Your task to perform on an android device: Search for handmade jewelry on Etsy. Image 0: 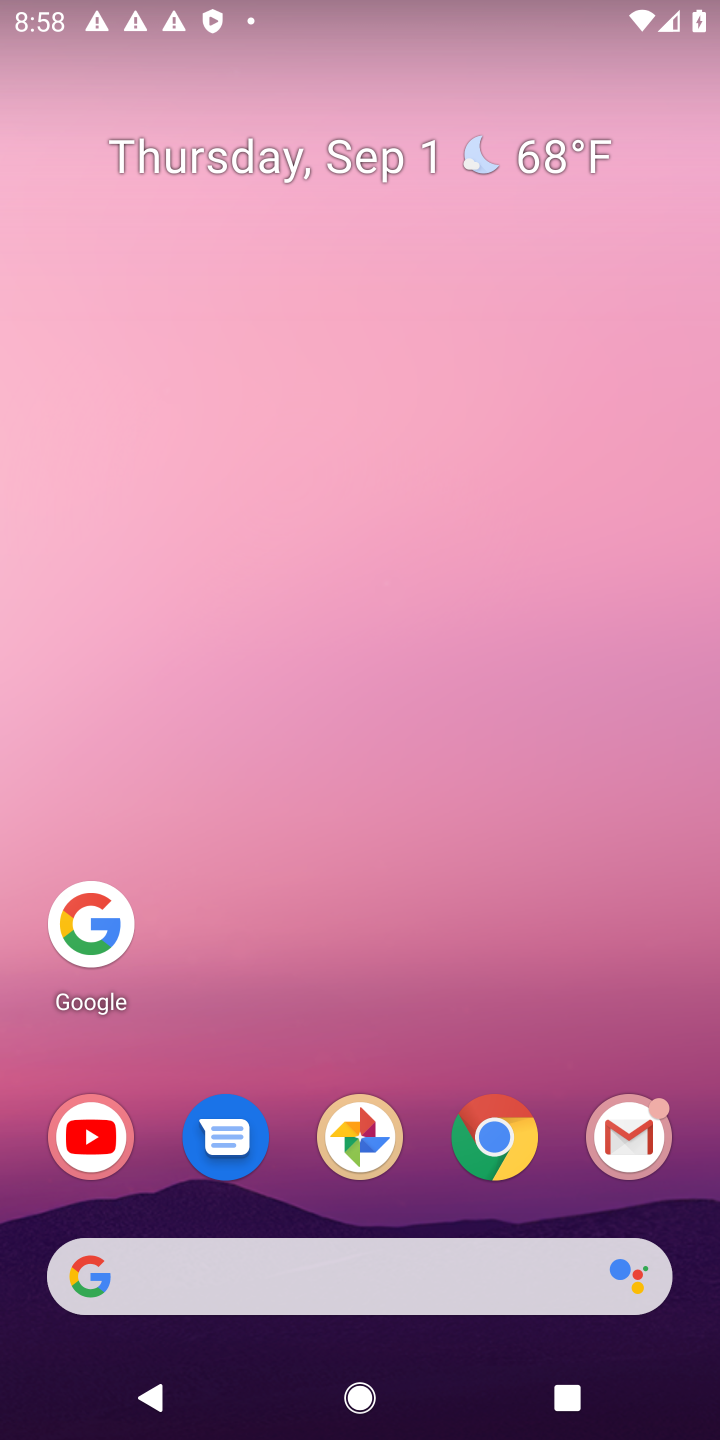
Step 0: click (80, 1267)
Your task to perform on an android device: Search for handmade jewelry on Etsy. Image 1: 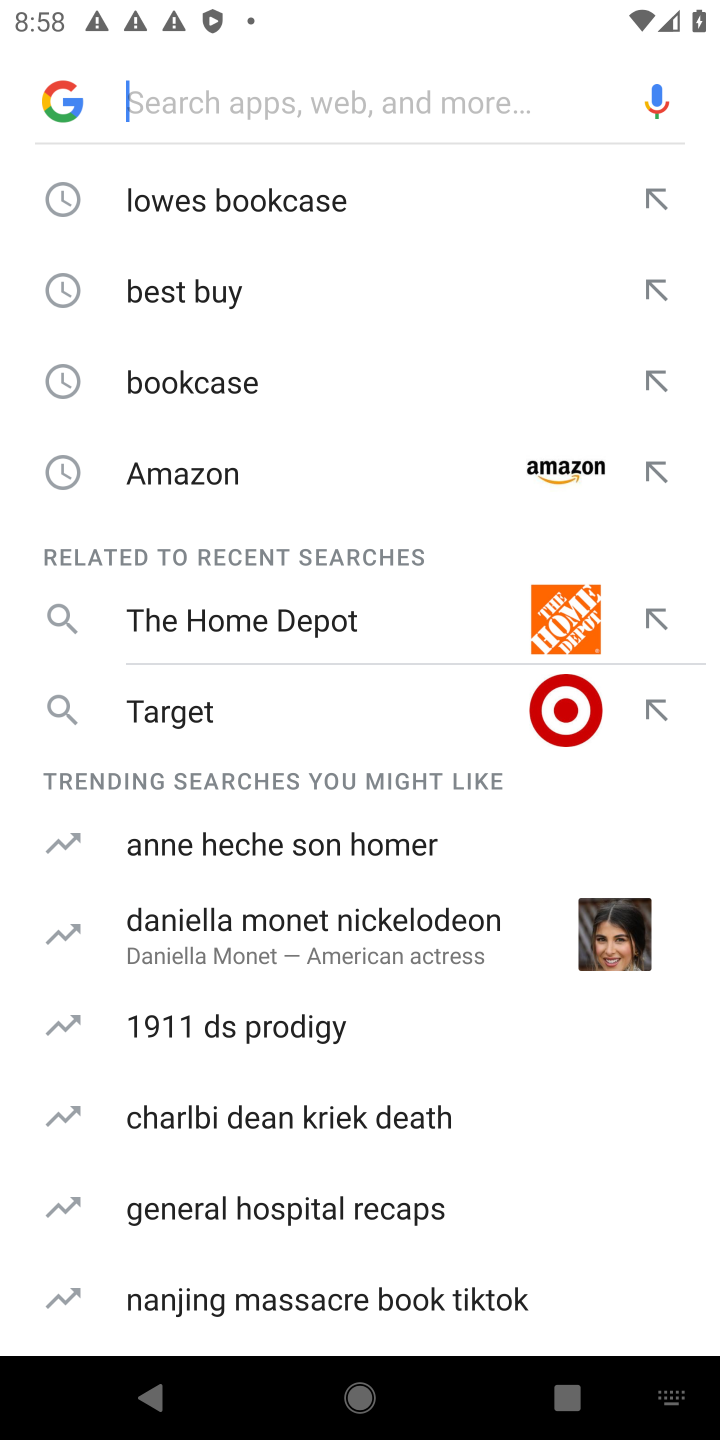
Step 1: type "etsy"
Your task to perform on an android device: Search for handmade jewelry on Etsy. Image 2: 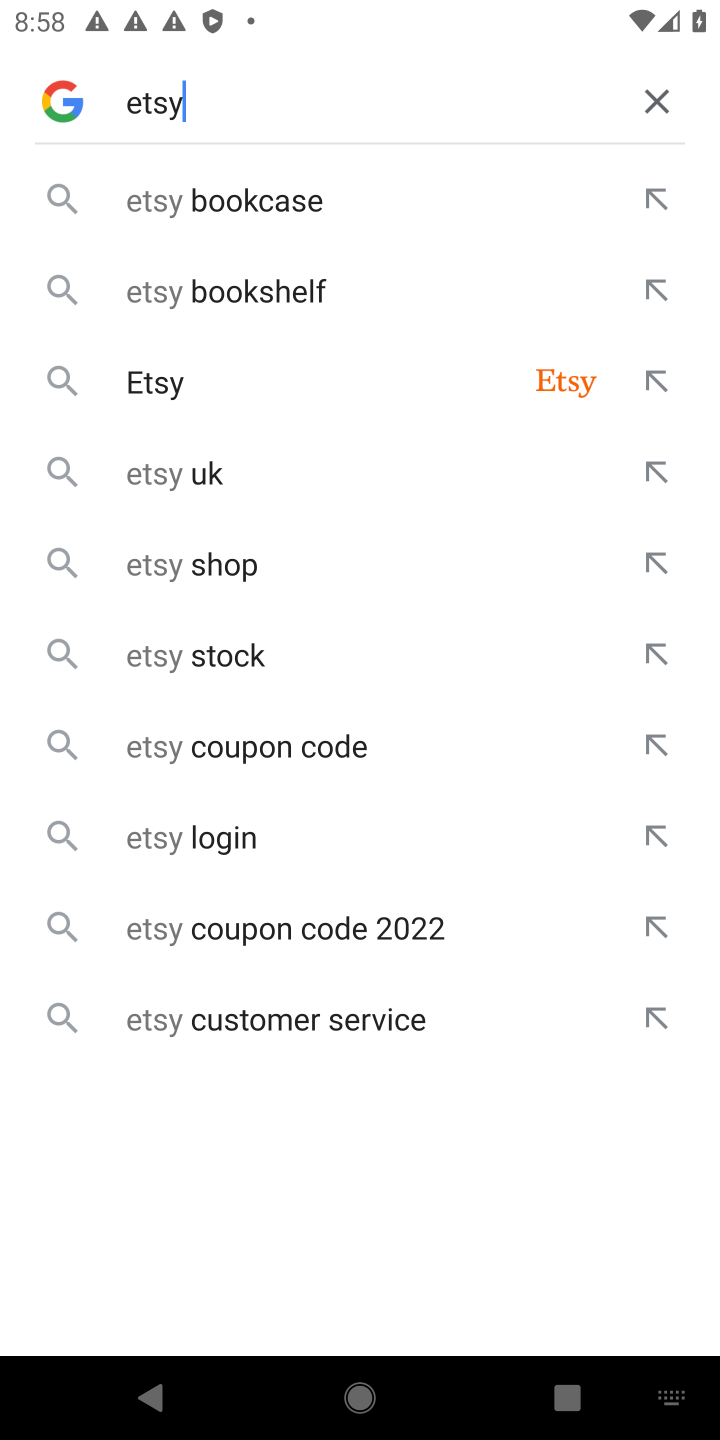
Step 2: click (159, 383)
Your task to perform on an android device: Search for handmade jewelry on Etsy. Image 3: 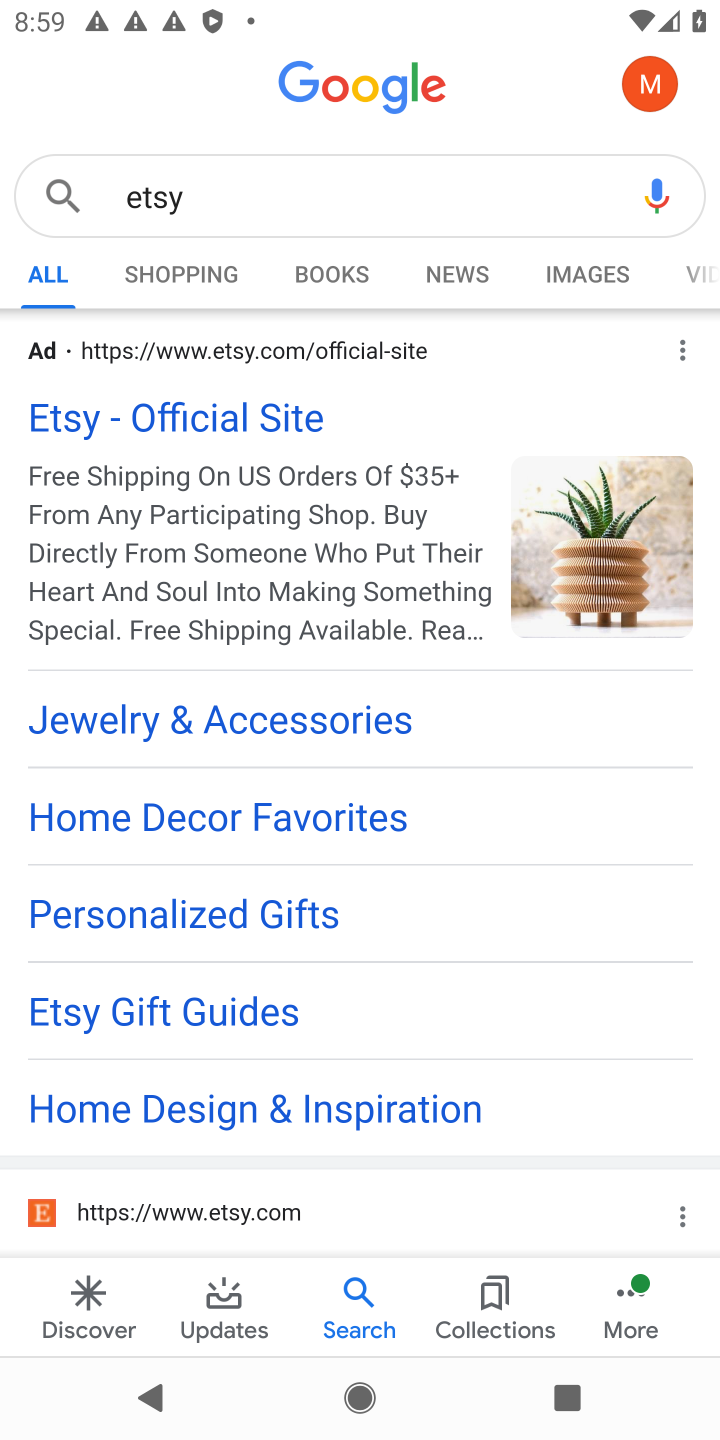
Step 3: click (99, 414)
Your task to perform on an android device: Search for handmade jewelry on Etsy. Image 4: 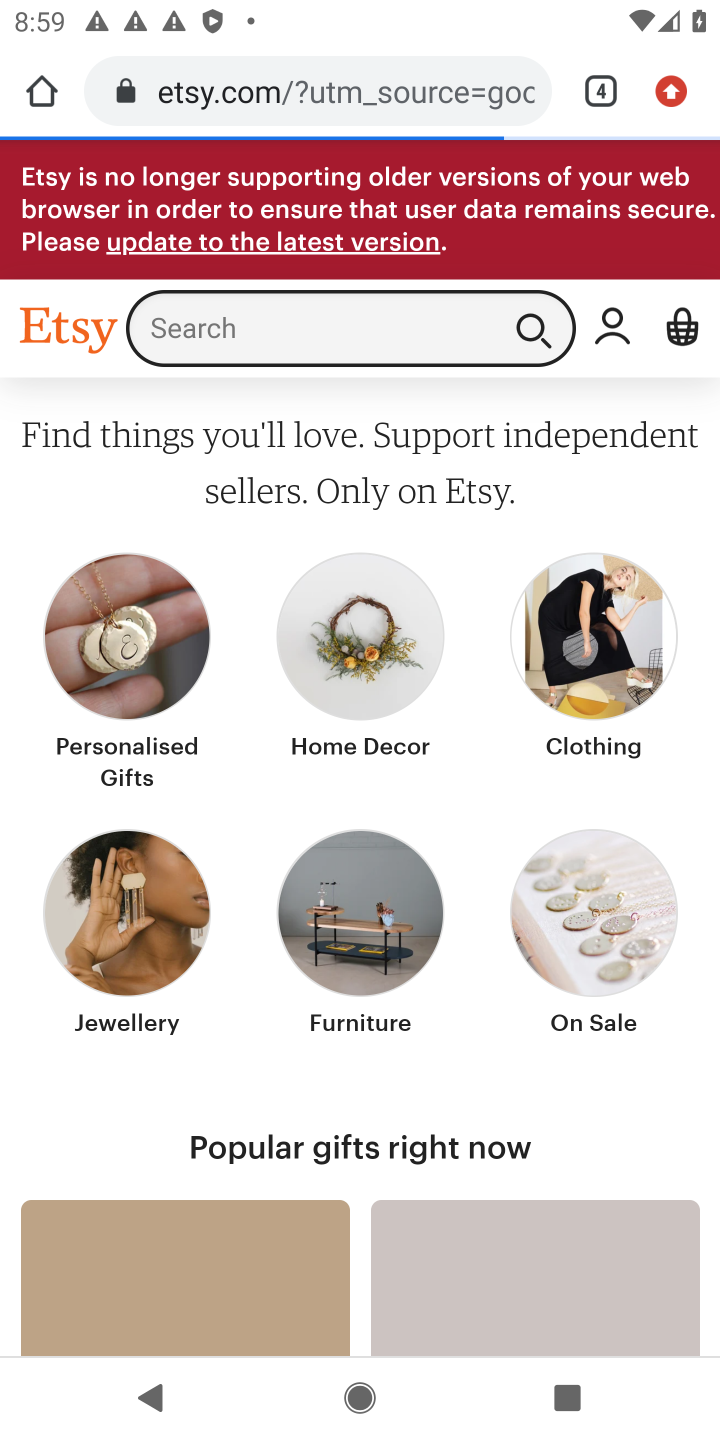
Step 4: click (405, 330)
Your task to perform on an android device: Search for handmade jewelry on Etsy. Image 5: 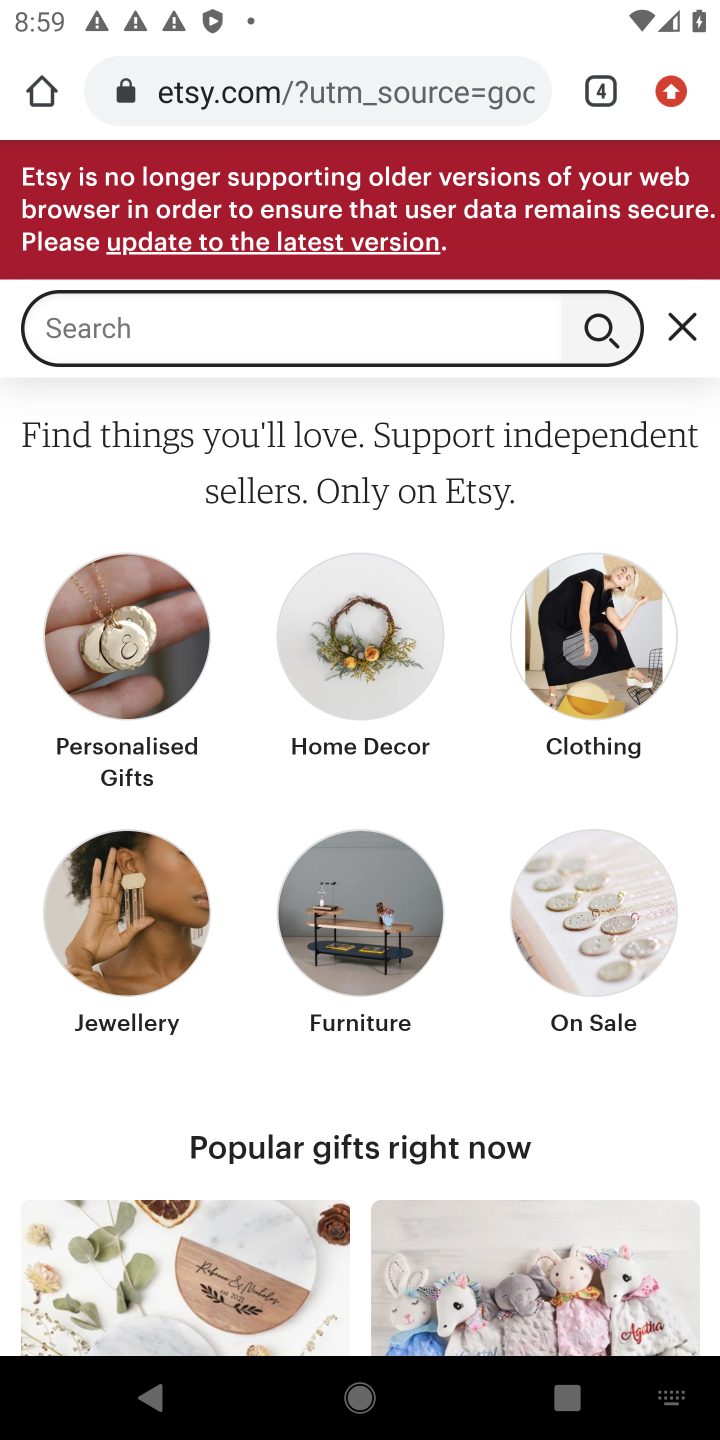
Step 5: type "handmade jewelry "
Your task to perform on an android device: Search for handmade jewelry on Etsy. Image 6: 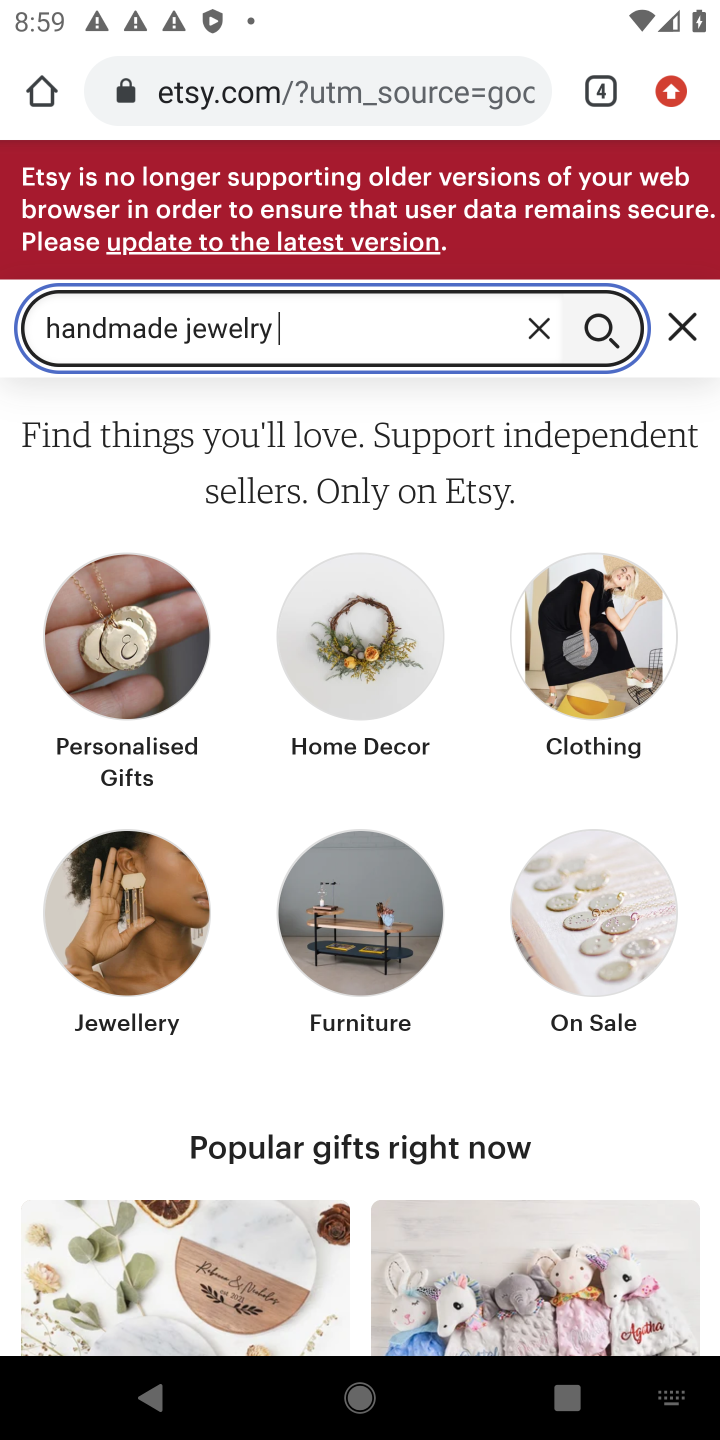
Step 6: click (590, 330)
Your task to perform on an android device: Search for handmade jewelry on Etsy. Image 7: 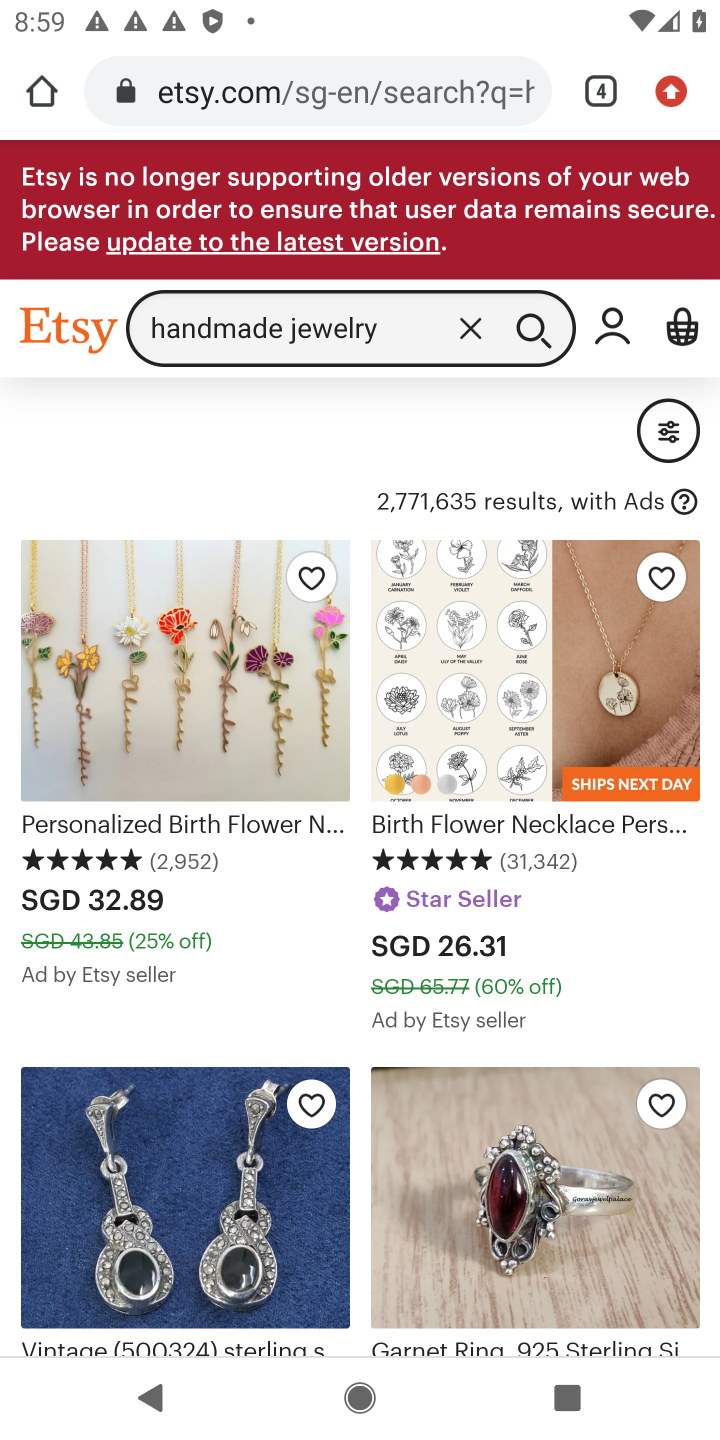
Step 7: task complete